Your task to perform on an android device: Check the news Image 0: 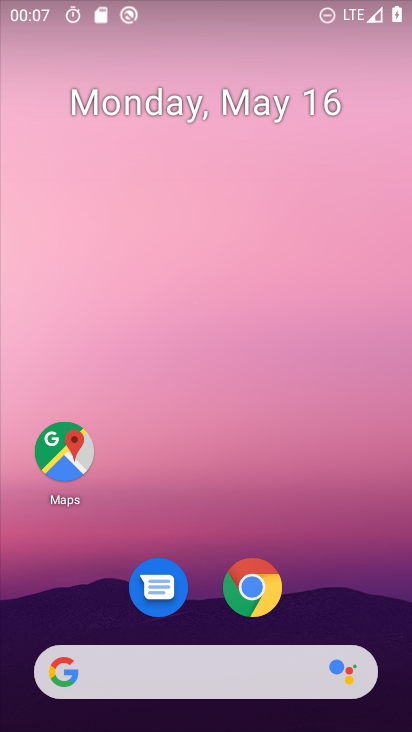
Step 0: drag from (199, 623) to (225, 224)
Your task to perform on an android device: Check the news Image 1: 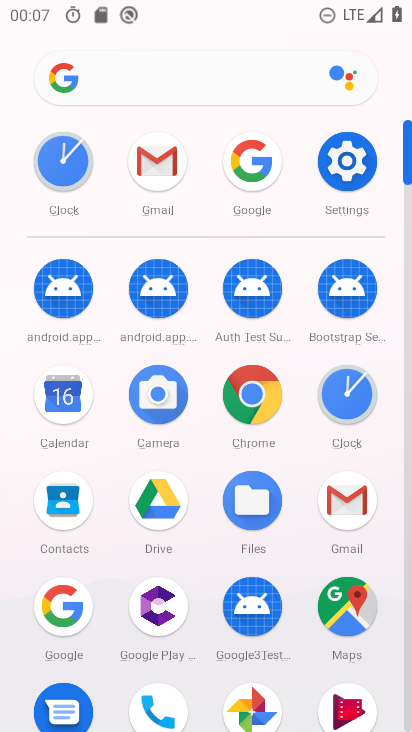
Step 1: click (269, 175)
Your task to perform on an android device: Check the news Image 2: 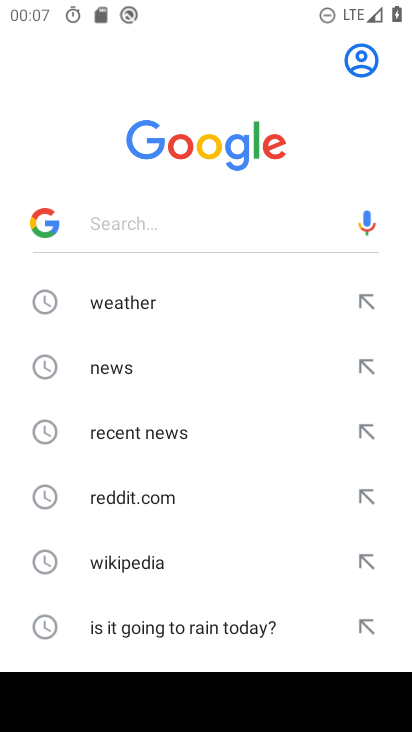
Step 2: click (129, 232)
Your task to perform on an android device: Check the news Image 3: 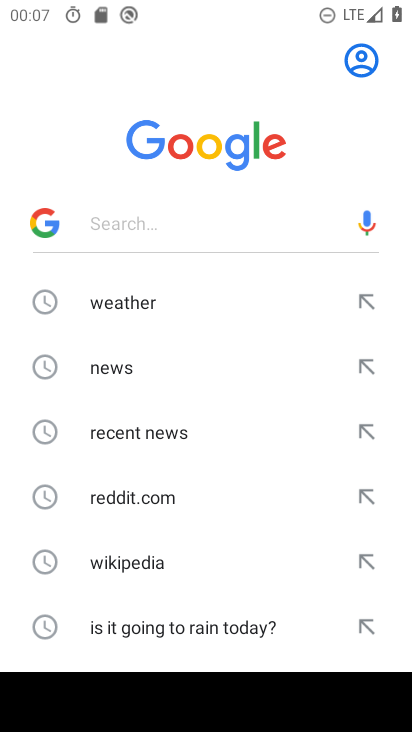
Step 3: click (104, 371)
Your task to perform on an android device: Check the news Image 4: 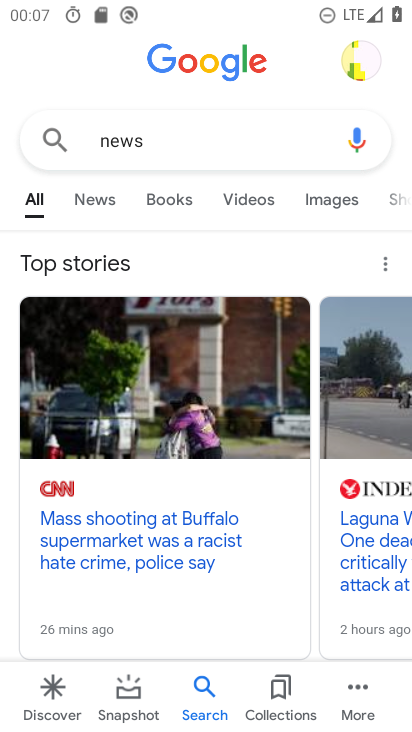
Step 4: click (83, 207)
Your task to perform on an android device: Check the news Image 5: 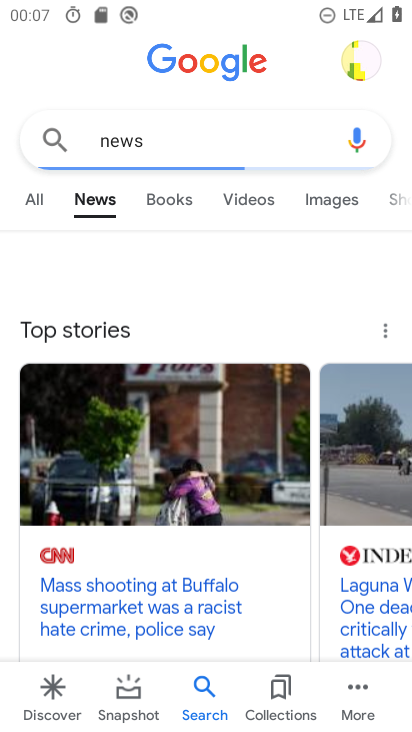
Step 5: task complete